Your task to perform on an android device: empty trash in the gmail app Image 0: 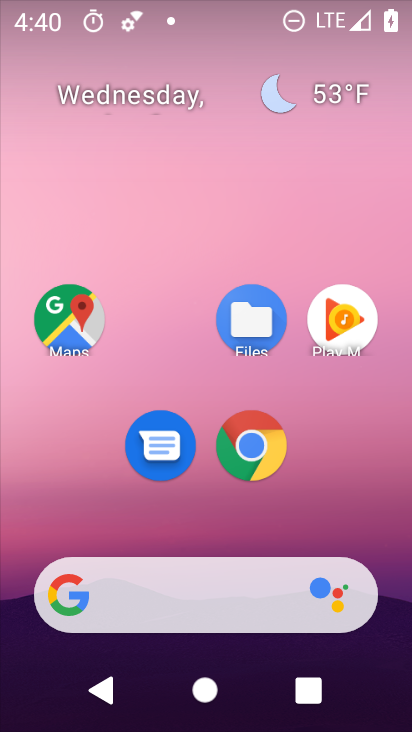
Step 0: drag from (293, 500) to (229, 7)
Your task to perform on an android device: empty trash in the gmail app Image 1: 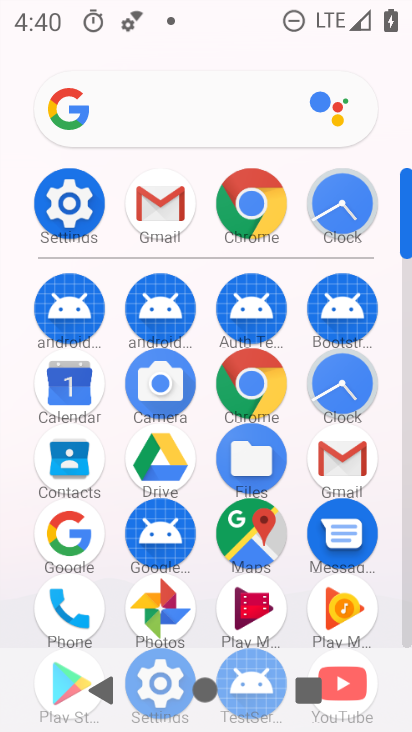
Step 1: click (168, 200)
Your task to perform on an android device: empty trash in the gmail app Image 2: 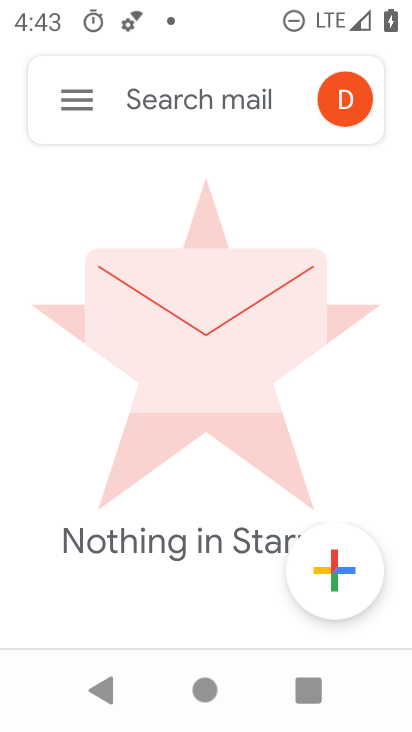
Step 2: click (81, 101)
Your task to perform on an android device: empty trash in the gmail app Image 3: 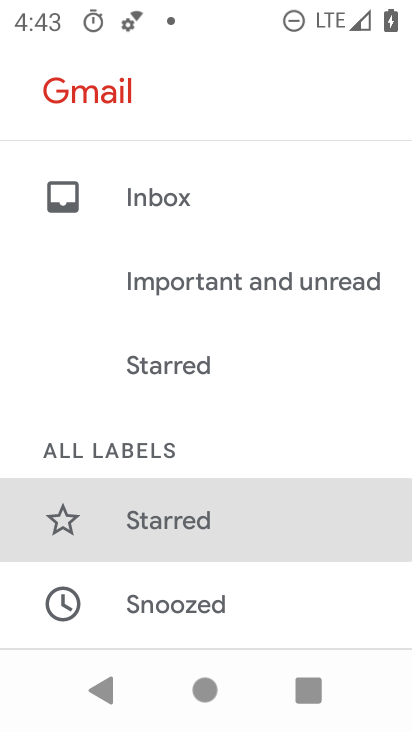
Step 3: drag from (187, 571) to (272, 50)
Your task to perform on an android device: empty trash in the gmail app Image 4: 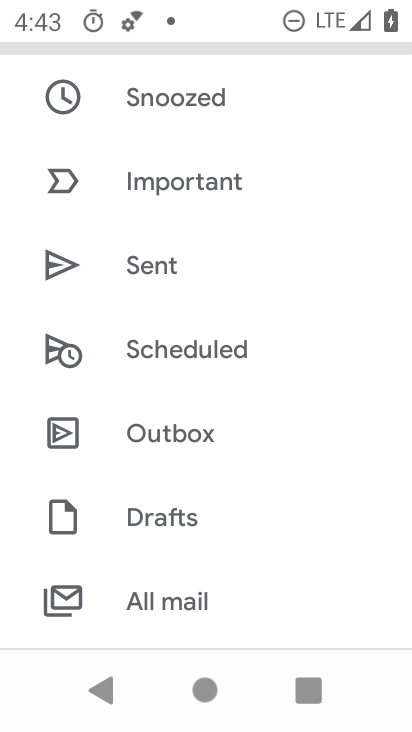
Step 4: drag from (216, 374) to (246, 230)
Your task to perform on an android device: empty trash in the gmail app Image 5: 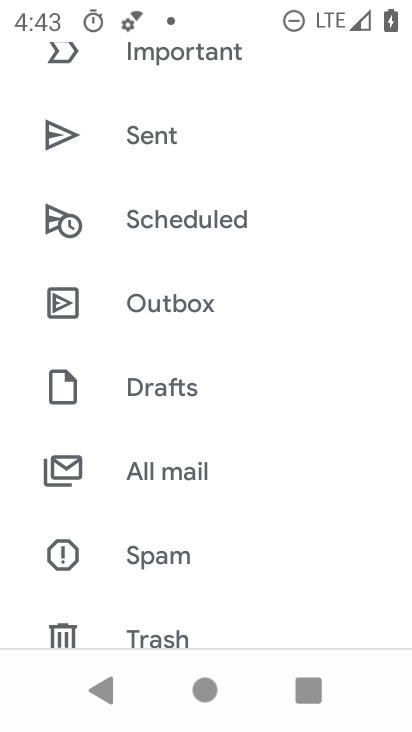
Step 5: click (150, 638)
Your task to perform on an android device: empty trash in the gmail app Image 6: 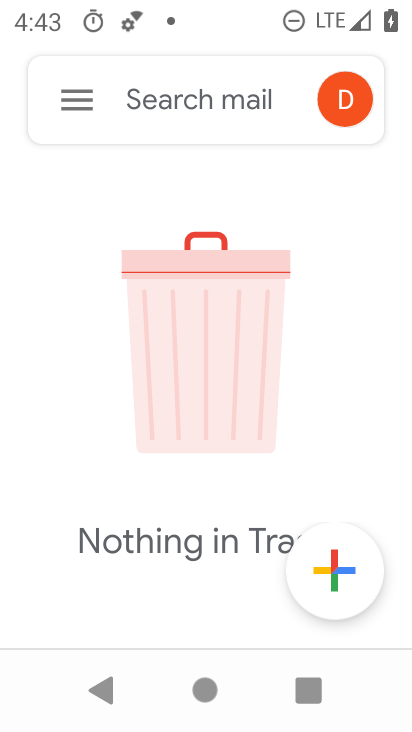
Step 6: task complete